Your task to perform on an android device: check android version Image 0: 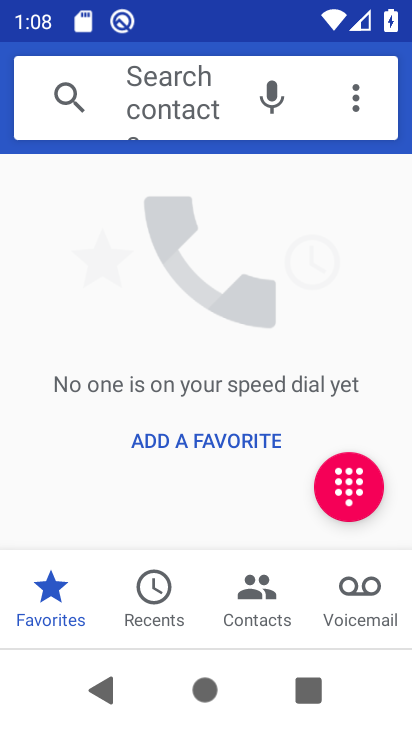
Step 0: press home button
Your task to perform on an android device: check android version Image 1: 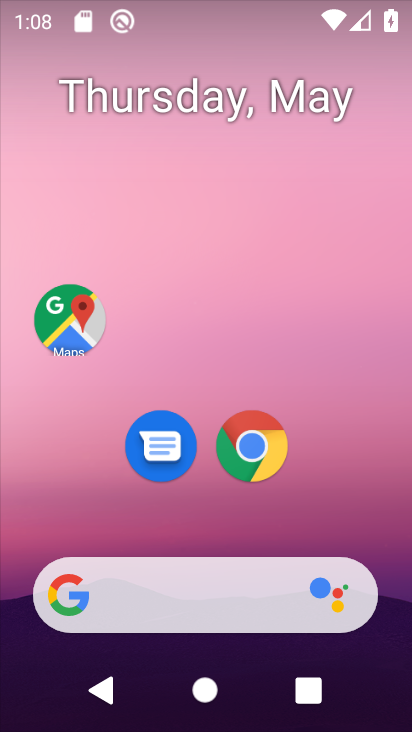
Step 1: drag from (217, 527) to (229, 0)
Your task to perform on an android device: check android version Image 2: 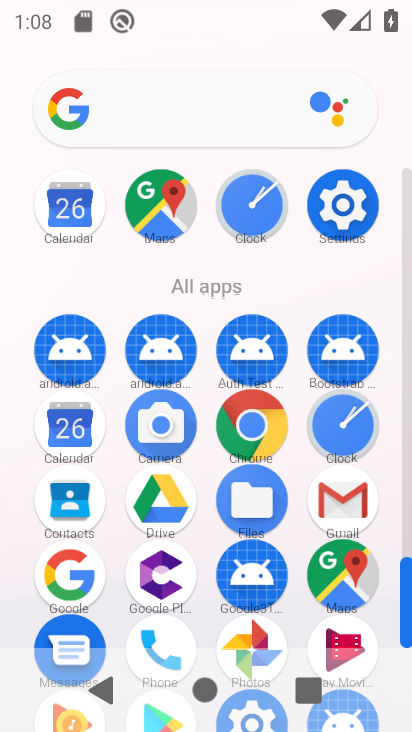
Step 2: click (359, 212)
Your task to perform on an android device: check android version Image 3: 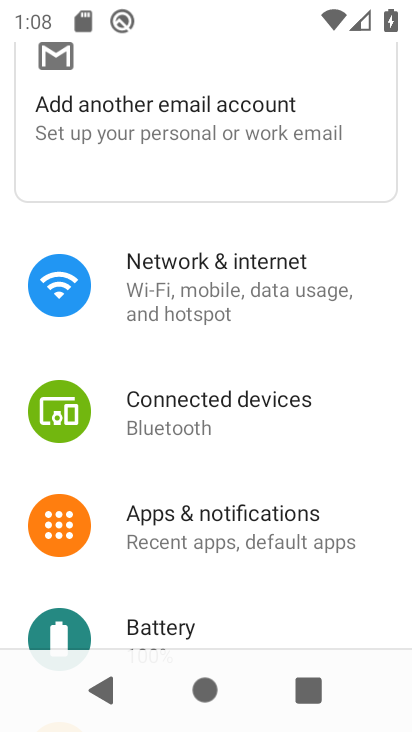
Step 3: drag from (234, 574) to (278, 107)
Your task to perform on an android device: check android version Image 4: 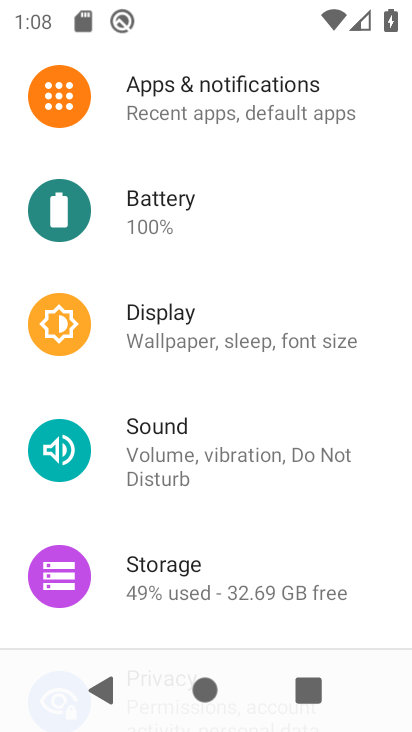
Step 4: drag from (222, 546) to (248, 186)
Your task to perform on an android device: check android version Image 5: 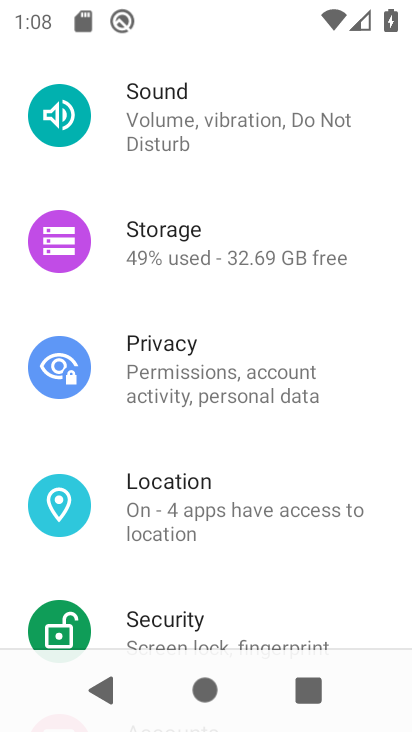
Step 5: drag from (160, 555) to (171, 349)
Your task to perform on an android device: check android version Image 6: 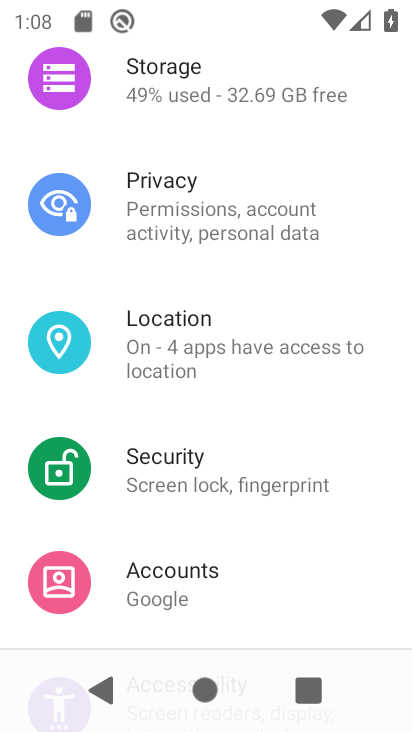
Step 6: drag from (229, 583) to (241, 171)
Your task to perform on an android device: check android version Image 7: 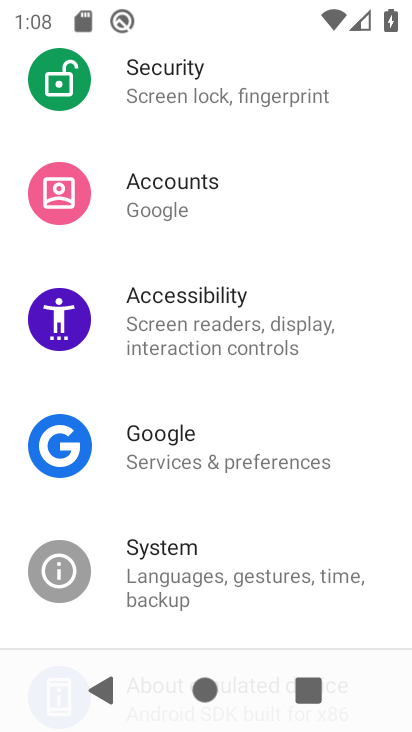
Step 7: drag from (200, 521) to (271, 7)
Your task to perform on an android device: check android version Image 8: 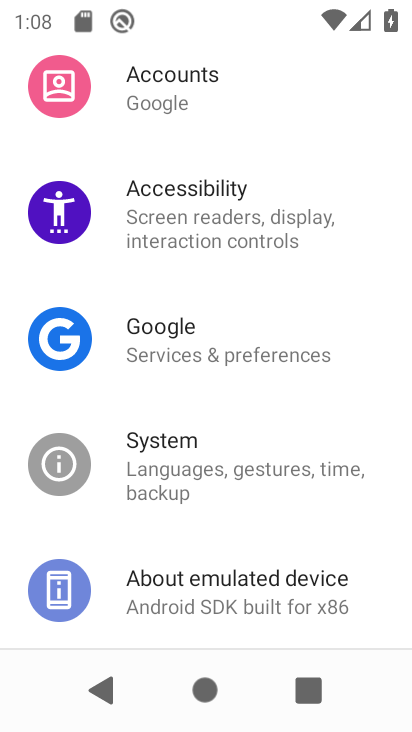
Step 8: drag from (185, 583) to (227, 374)
Your task to perform on an android device: check android version Image 9: 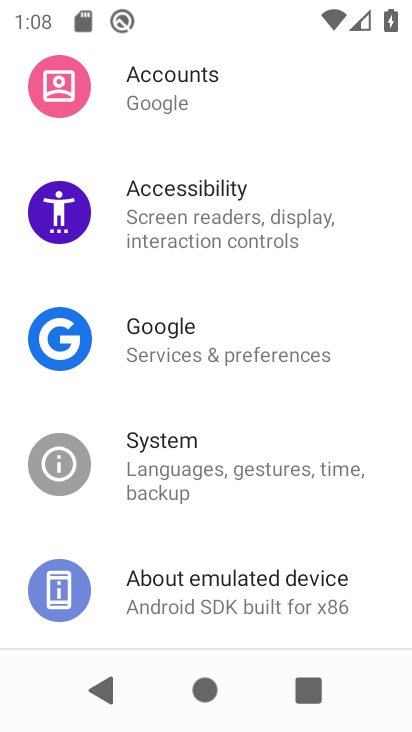
Step 9: click (204, 590)
Your task to perform on an android device: check android version Image 10: 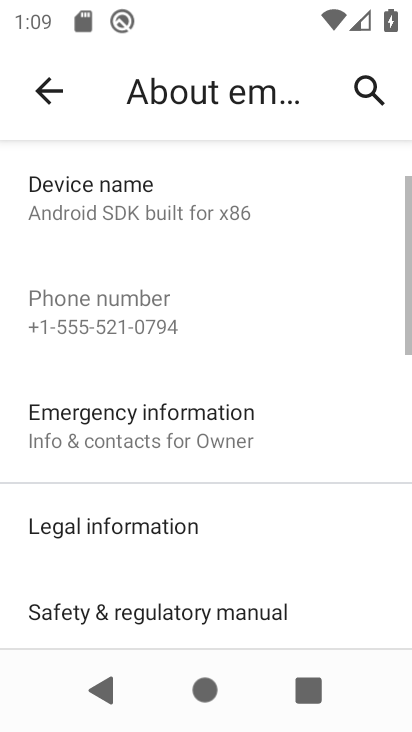
Step 10: drag from (126, 515) to (162, 233)
Your task to perform on an android device: check android version Image 11: 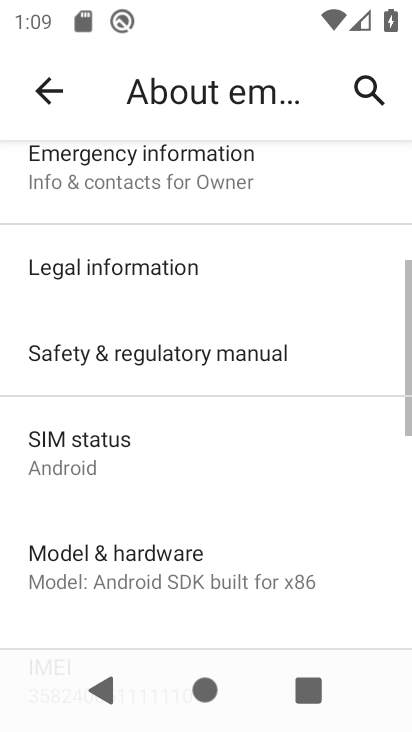
Step 11: drag from (140, 581) to (188, 298)
Your task to perform on an android device: check android version Image 12: 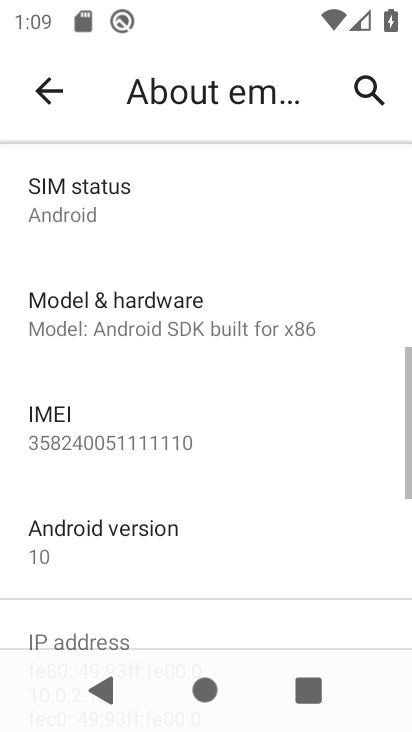
Step 12: click (124, 553)
Your task to perform on an android device: check android version Image 13: 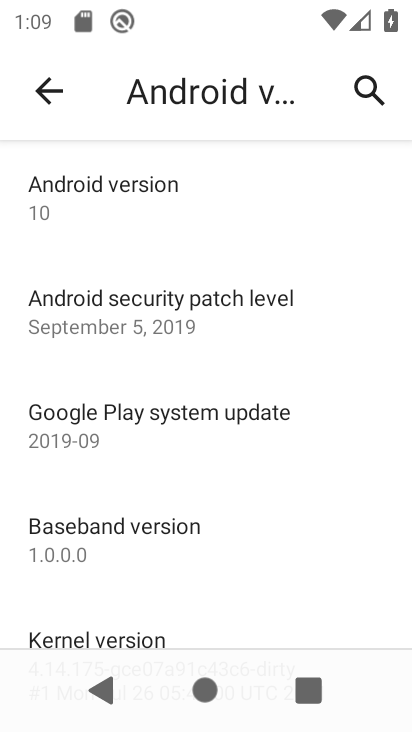
Step 13: task complete